Your task to perform on an android device: Search for vegetarian restaurants on Maps Image 0: 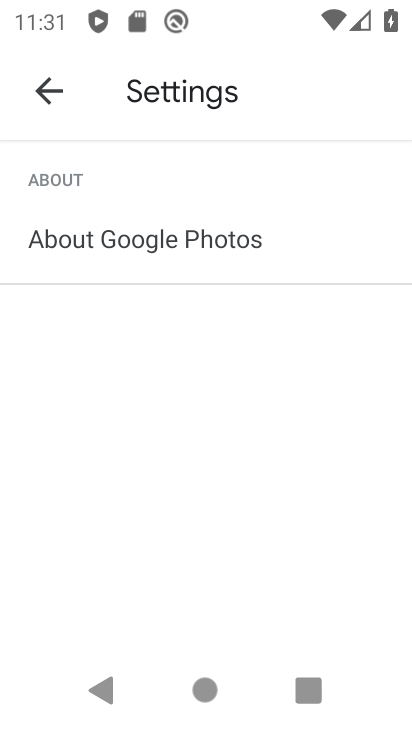
Step 0: press home button
Your task to perform on an android device: Search for vegetarian restaurants on Maps Image 1: 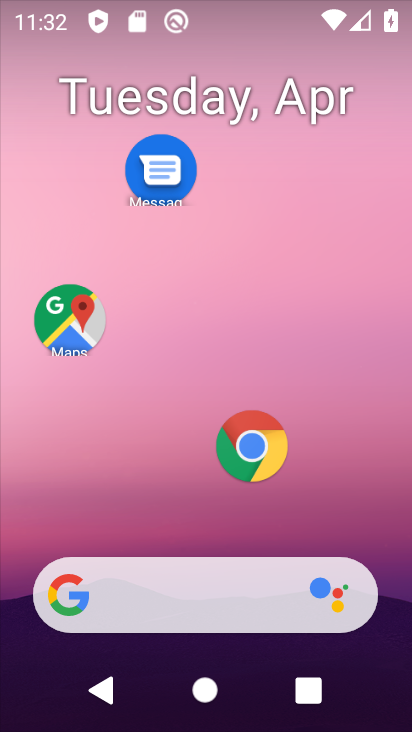
Step 1: drag from (314, 414) to (300, 73)
Your task to perform on an android device: Search for vegetarian restaurants on Maps Image 2: 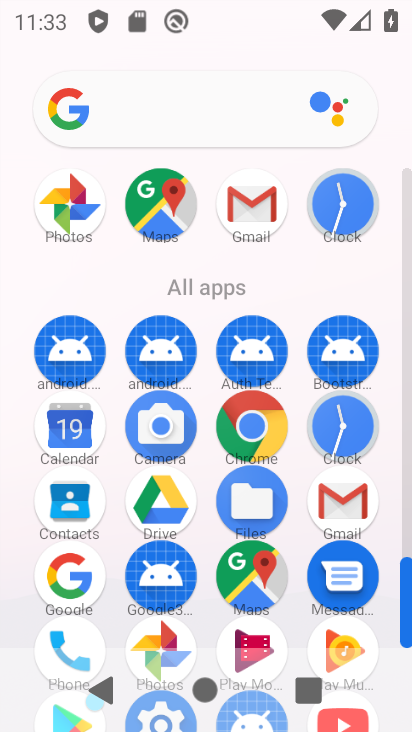
Step 2: click (256, 589)
Your task to perform on an android device: Search for vegetarian restaurants on Maps Image 3: 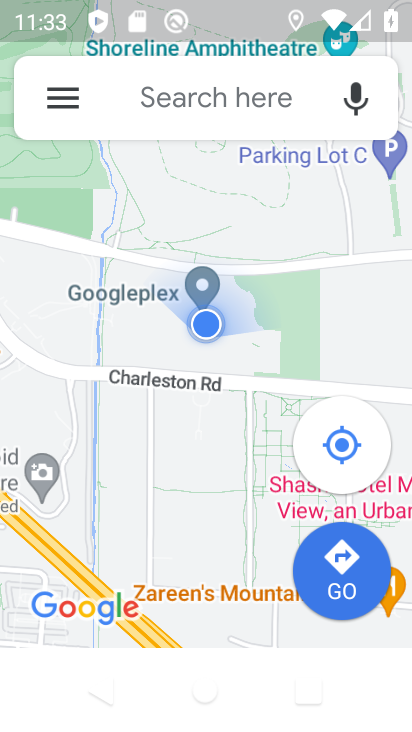
Step 3: click (183, 114)
Your task to perform on an android device: Search for vegetarian restaurants on Maps Image 4: 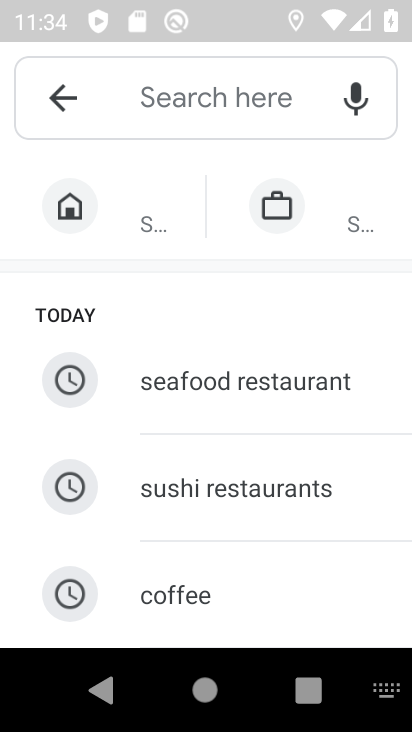
Step 4: type "vegetarian "
Your task to perform on an android device: Search for vegetarian restaurants on Maps Image 5: 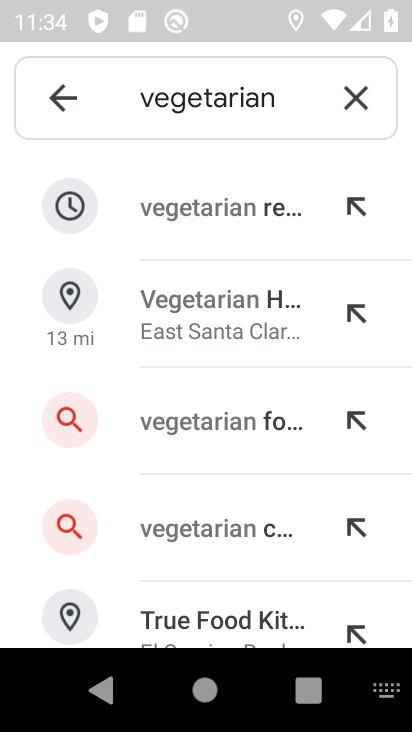
Step 5: click (236, 217)
Your task to perform on an android device: Search for vegetarian restaurants on Maps Image 6: 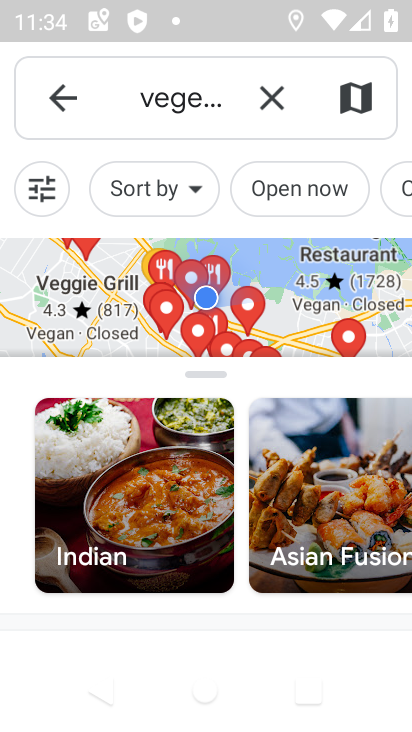
Step 6: task complete